Your task to perform on an android device: allow cookies in the chrome app Image 0: 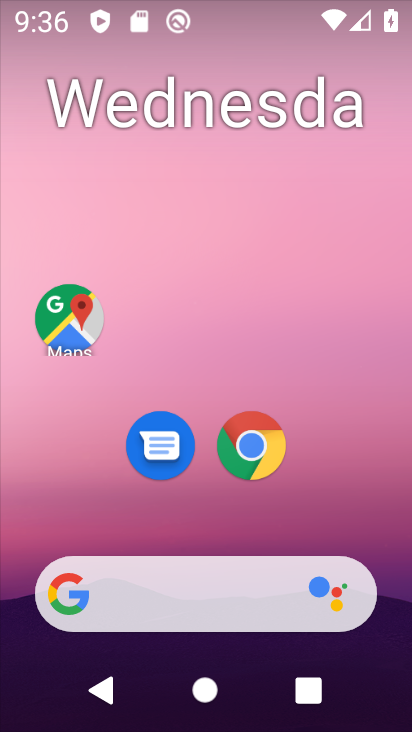
Step 0: click (230, 438)
Your task to perform on an android device: allow cookies in the chrome app Image 1: 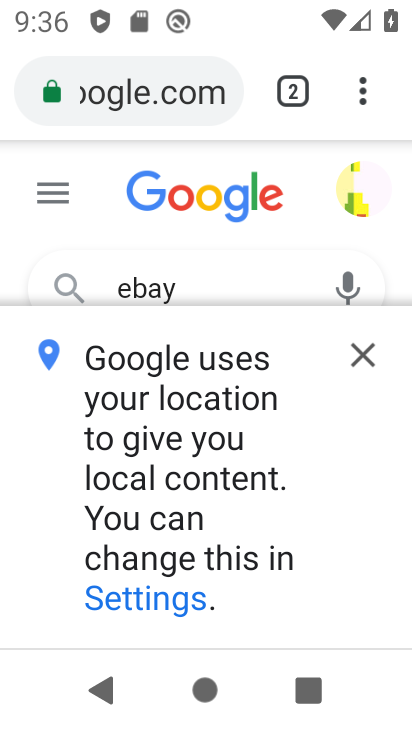
Step 1: click (357, 91)
Your task to perform on an android device: allow cookies in the chrome app Image 2: 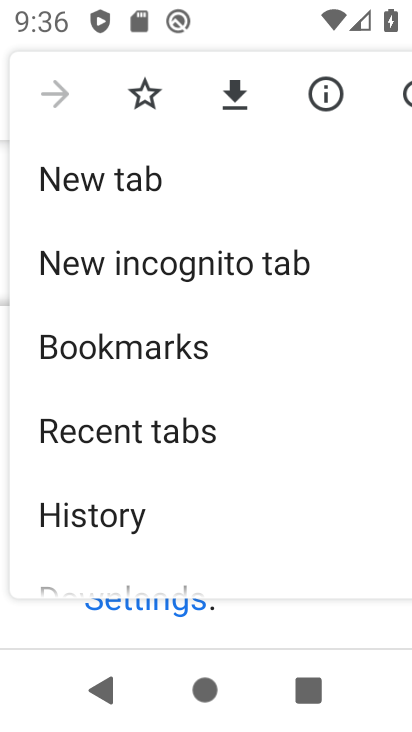
Step 2: drag from (155, 495) to (253, 158)
Your task to perform on an android device: allow cookies in the chrome app Image 3: 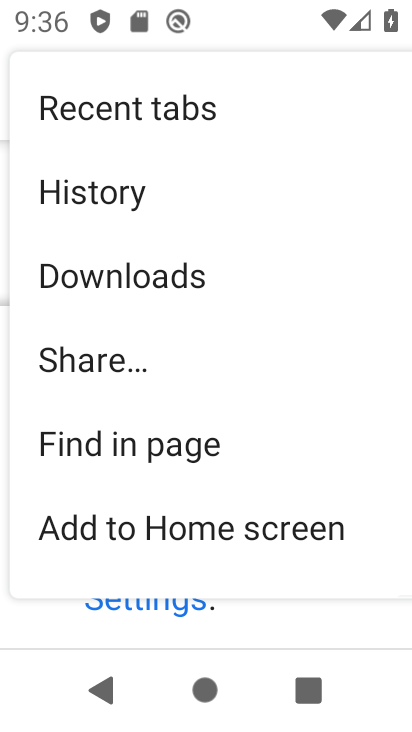
Step 3: drag from (144, 531) to (287, 39)
Your task to perform on an android device: allow cookies in the chrome app Image 4: 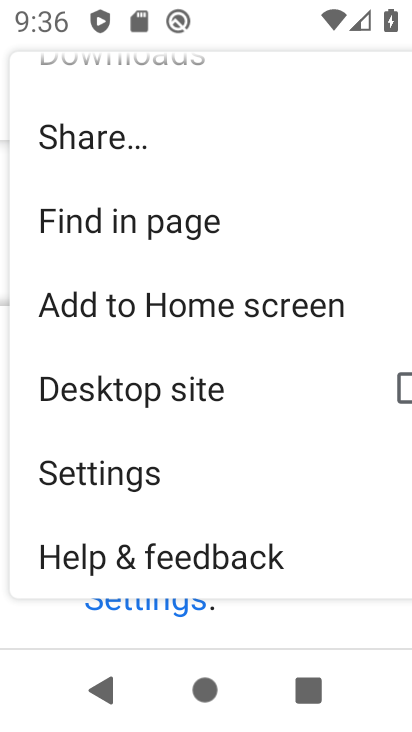
Step 4: click (85, 464)
Your task to perform on an android device: allow cookies in the chrome app Image 5: 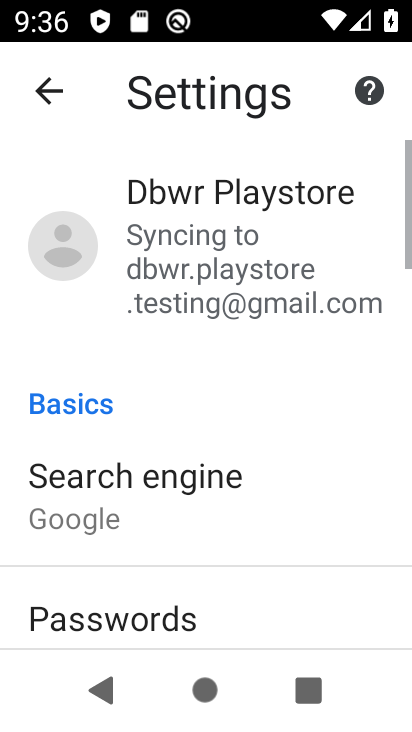
Step 5: drag from (130, 540) to (284, 13)
Your task to perform on an android device: allow cookies in the chrome app Image 6: 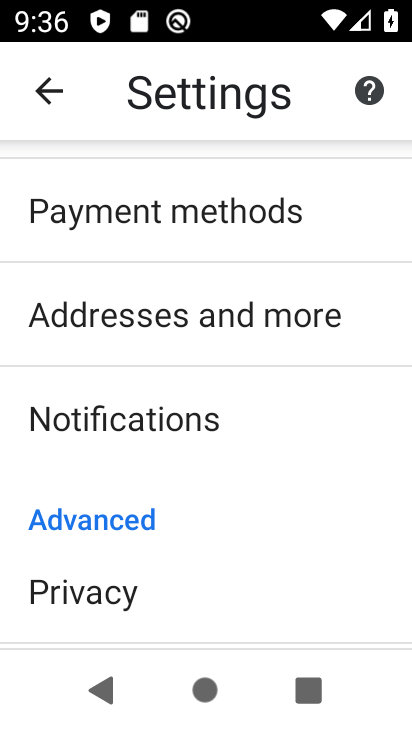
Step 6: drag from (158, 531) to (262, 61)
Your task to perform on an android device: allow cookies in the chrome app Image 7: 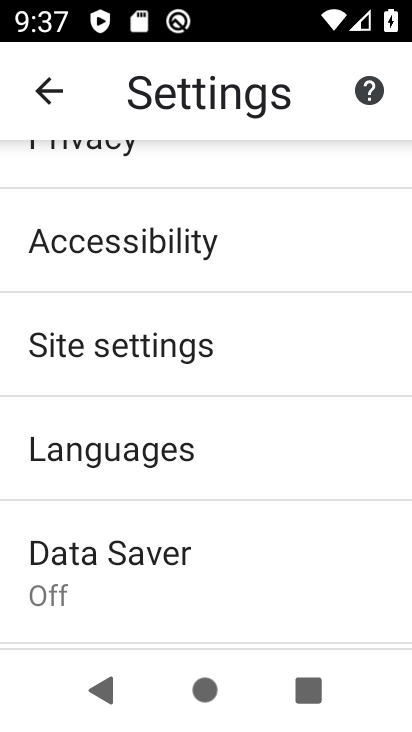
Step 7: click (149, 332)
Your task to perform on an android device: allow cookies in the chrome app Image 8: 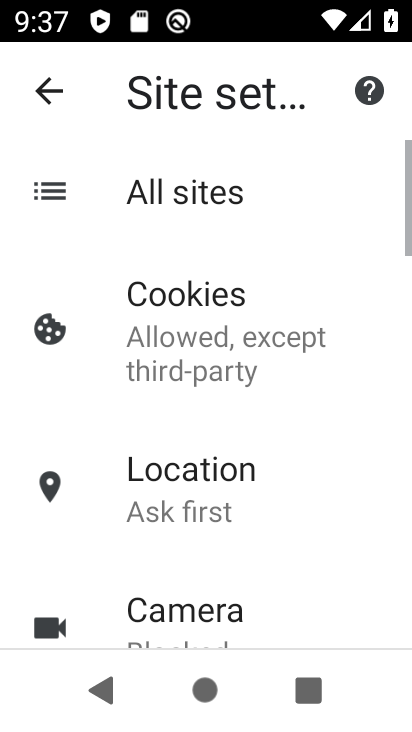
Step 8: click (175, 331)
Your task to perform on an android device: allow cookies in the chrome app Image 9: 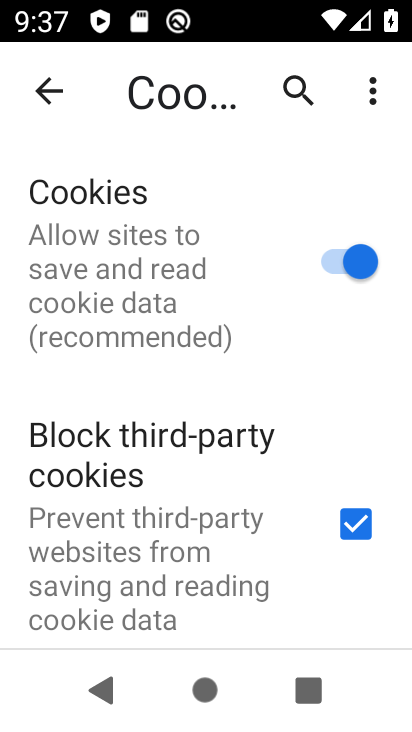
Step 9: task complete